Your task to perform on an android device: turn pop-ups off in chrome Image 0: 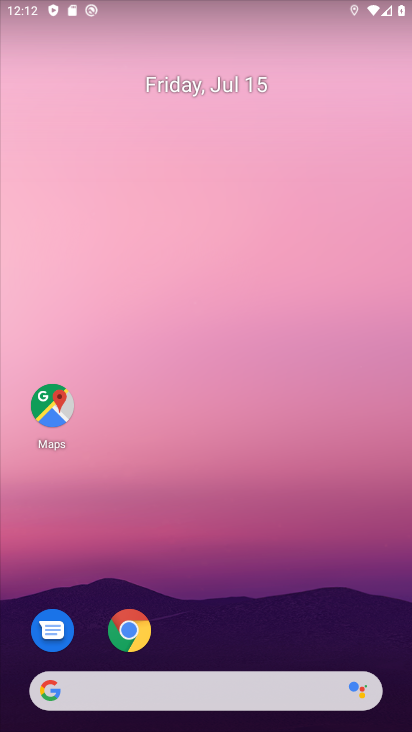
Step 0: click (126, 633)
Your task to perform on an android device: turn pop-ups off in chrome Image 1: 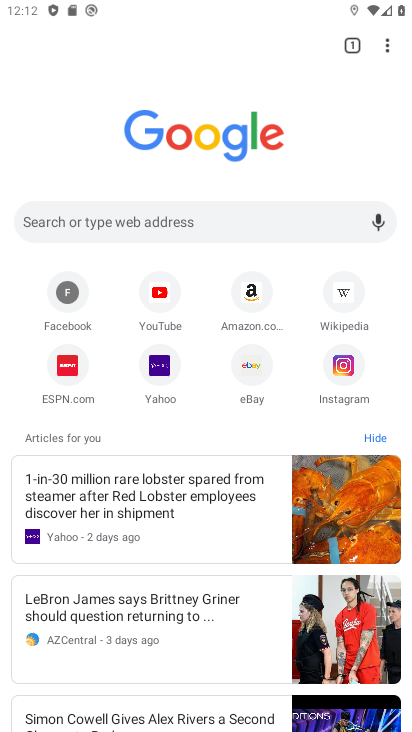
Step 1: click (385, 49)
Your task to perform on an android device: turn pop-ups off in chrome Image 2: 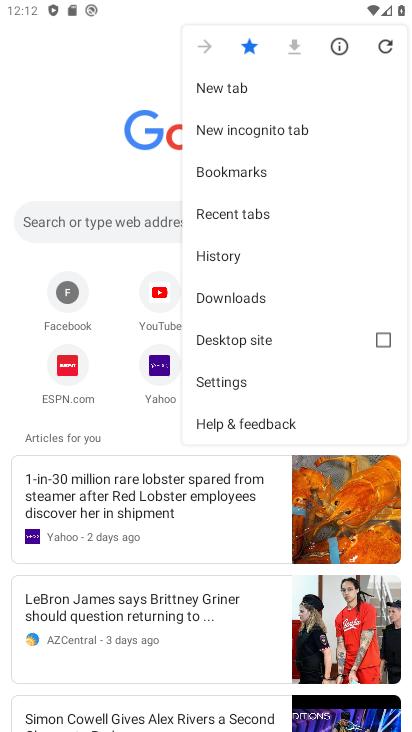
Step 2: click (202, 379)
Your task to perform on an android device: turn pop-ups off in chrome Image 3: 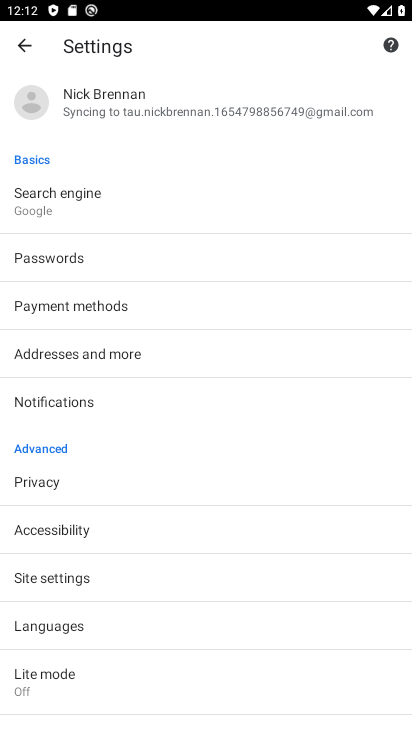
Step 3: drag from (104, 550) to (140, 25)
Your task to perform on an android device: turn pop-ups off in chrome Image 4: 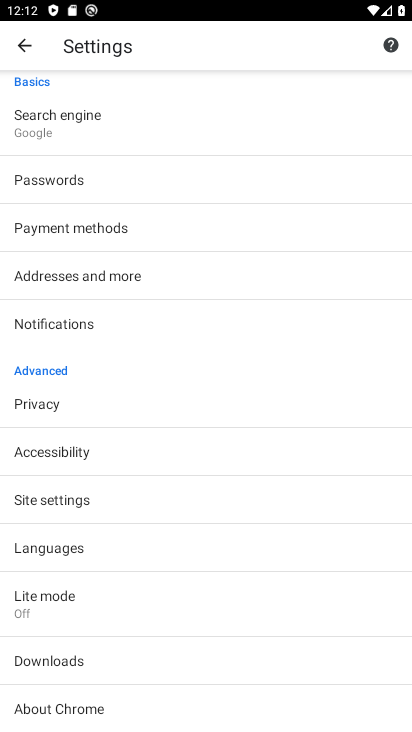
Step 4: click (51, 497)
Your task to perform on an android device: turn pop-ups off in chrome Image 5: 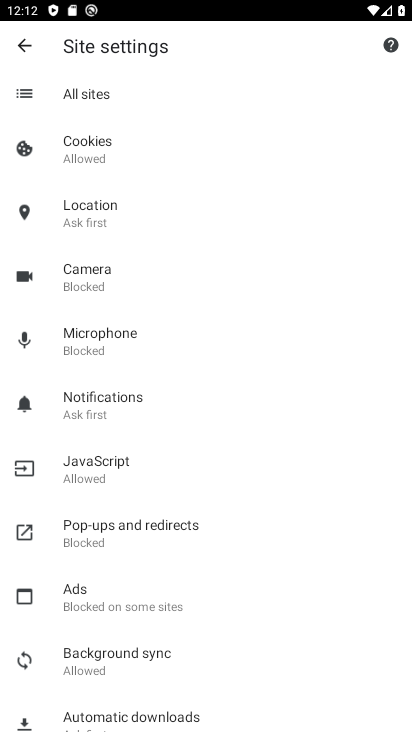
Step 5: click (120, 530)
Your task to perform on an android device: turn pop-ups off in chrome Image 6: 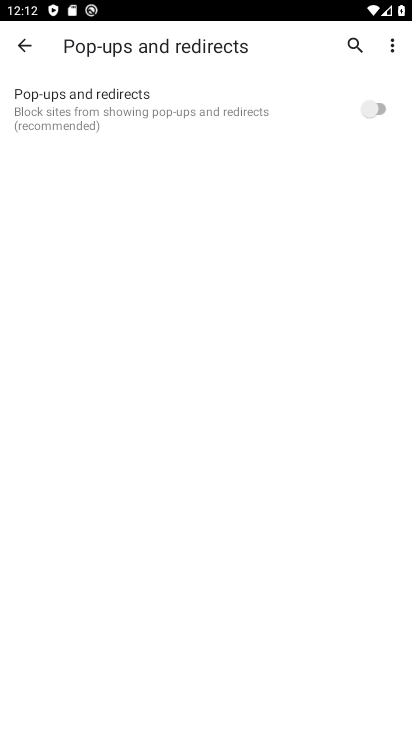
Step 6: task complete